Your task to perform on an android device: Search for sushi restaurants on Maps Image 0: 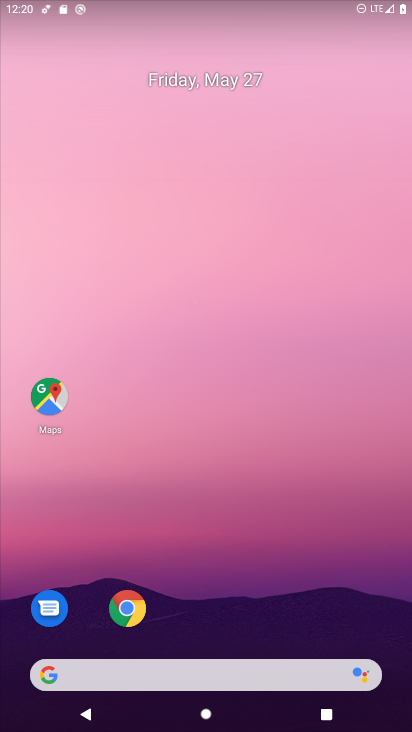
Step 0: press home button
Your task to perform on an android device: Search for sushi restaurants on Maps Image 1: 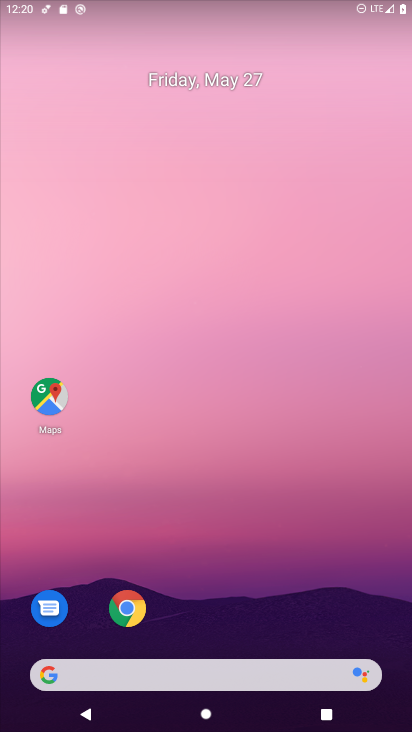
Step 1: click (47, 408)
Your task to perform on an android device: Search for sushi restaurants on Maps Image 2: 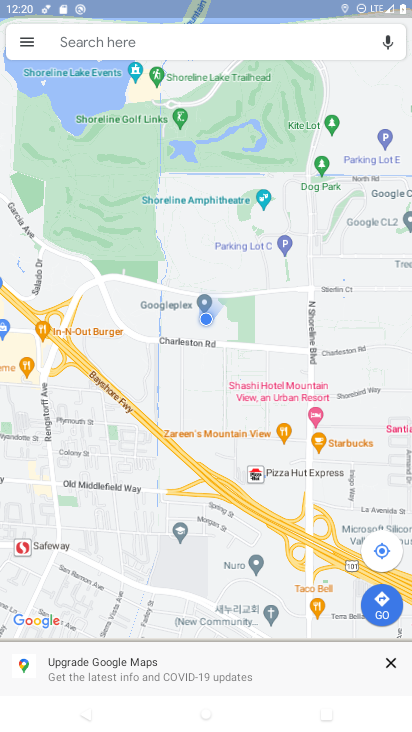
Step 2: click (207, 47)
Your task to perform on an android device: Search for sushi restaurants on Maps Image 3: 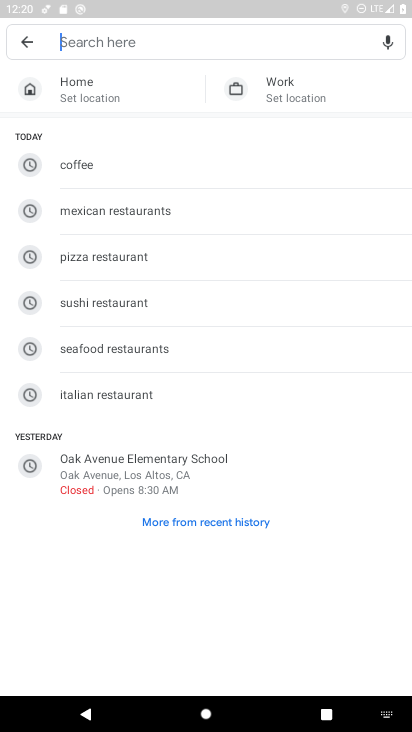
Step 3: click (87, 304)
Your task to perform on an android device: Search for sushi restaurants on Maps Image 4: 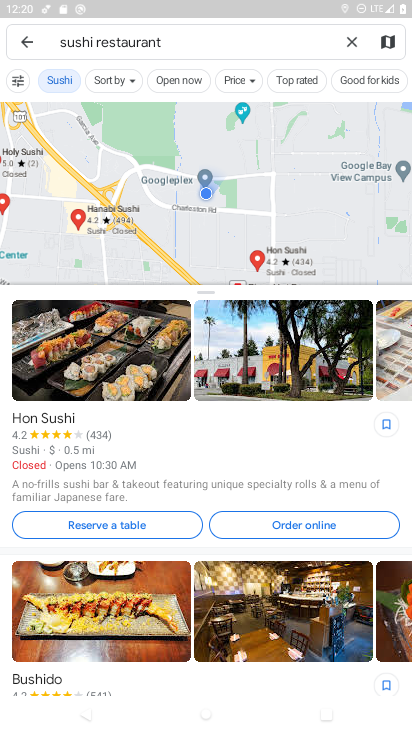
Step 4: task complete